Your task to perform on an android device: set default search engine in the chrome app Image 0: 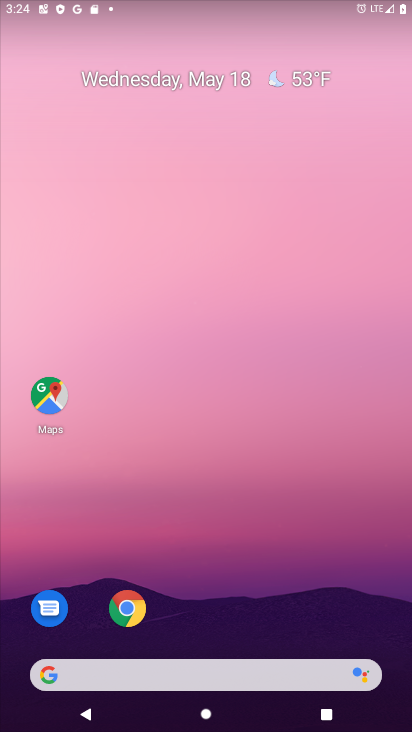
Step 0: click (125, 608)
Your task to perform on an android device: set default search engine in the chrome app Image 1: 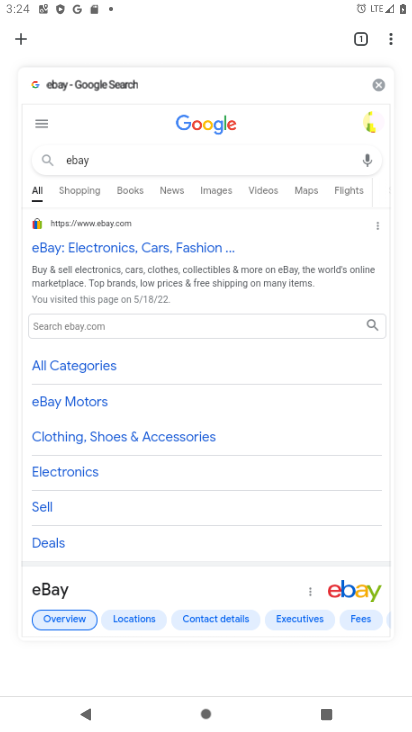
Step 1: click (393, 42)
Your task to perform on an android device: set default search engine in the chrome app Image 2: 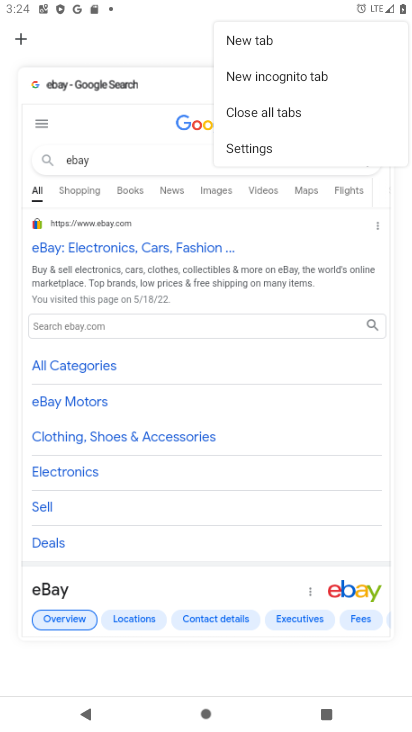
Step 2: click (247, 151)
Your task to perform on an android device: set default search engine in the chrome app Image 3: 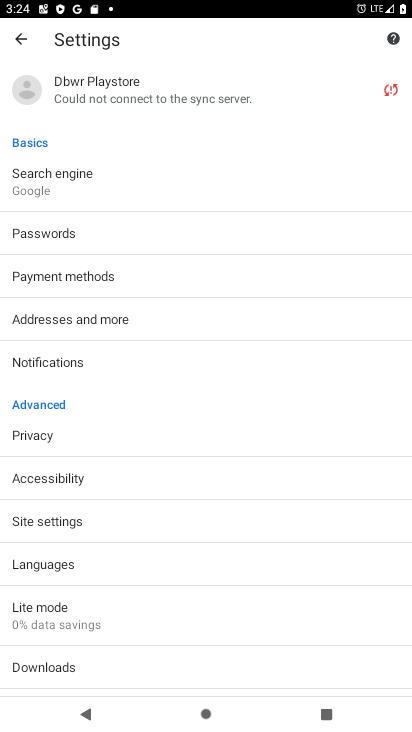
Step 3: click (32, 176)
Your task to perform on an android device: set default search engine in the chrome app Image 4: 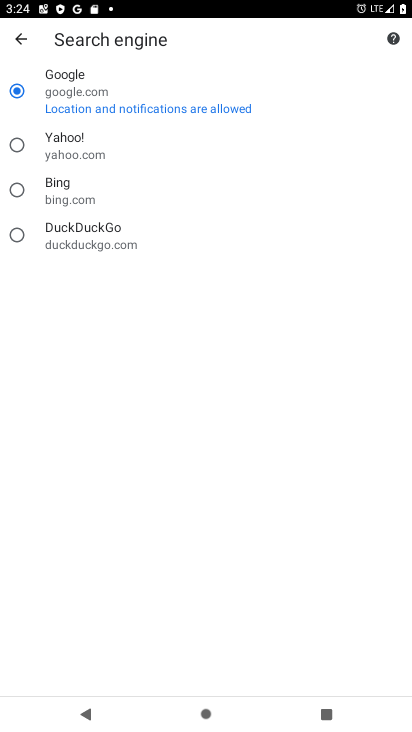
Step 4: click (10, 130)
Your task to perform on an android device: set default search engine in the chrome app Image 5: 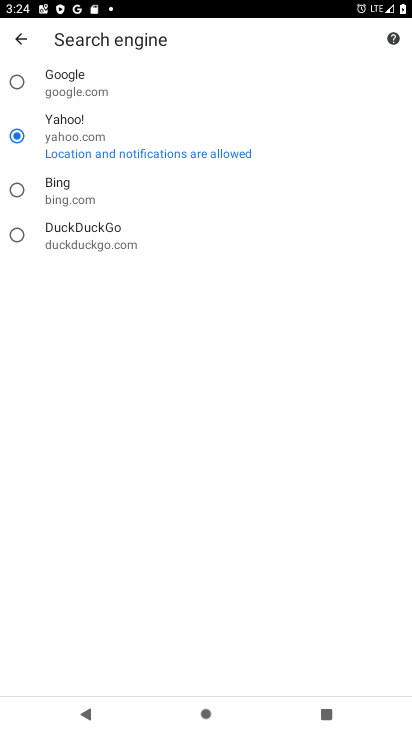
Step 5: task complete